Your task to perform on an android device: toggle data saver in the chrome app Image 0: 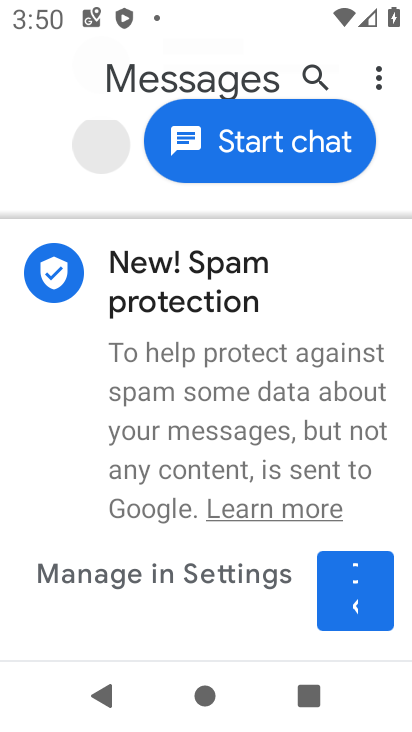
Step 0: press back button
Your task to perform on an android device: toggle data saver in the chrome app Image 1: 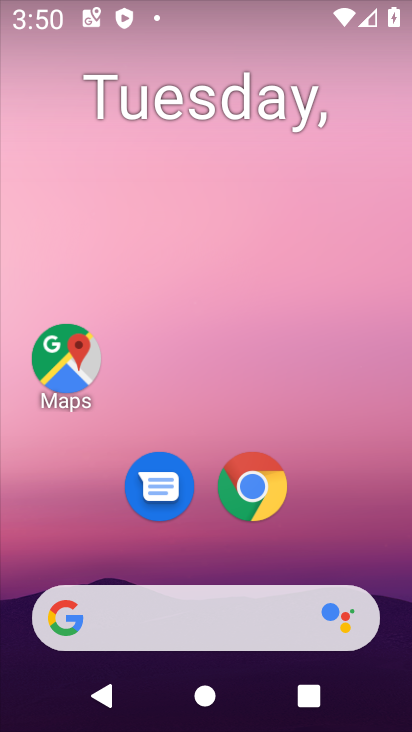
Step 1: click (263, 479)
Your task to perform on an android device: toggle data saver in the chrome app Image 2: 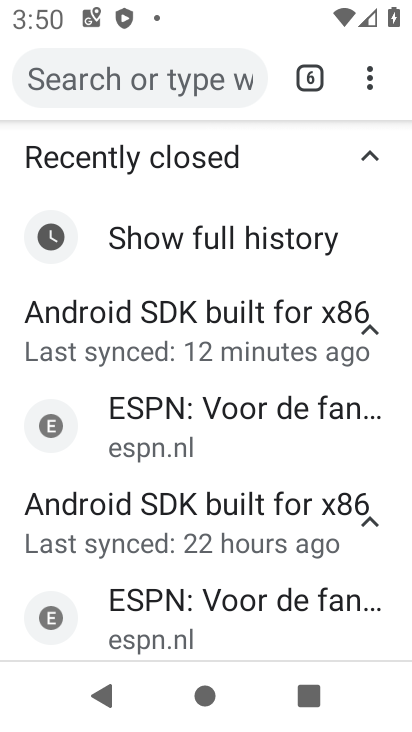
Step 2: drag from (369, 71) to (112, 550)
Your task to perform on an android device: toggle data saver in the chrome app Image 3: 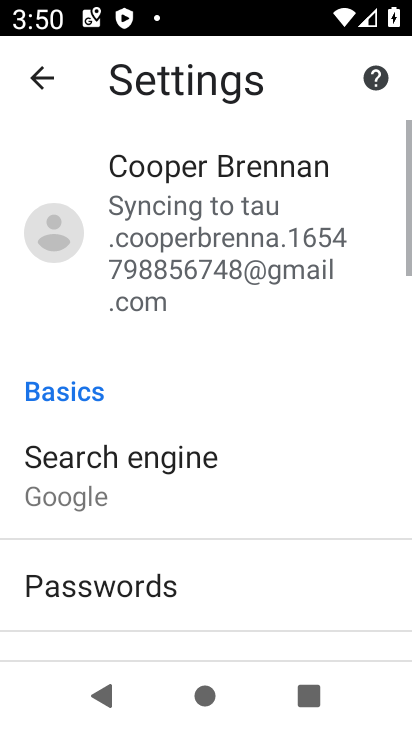
Step 3: drag from (136, 614) to (217, 123)
Your task to perform on an android device: toggle data saver in the chrome app Image 4: 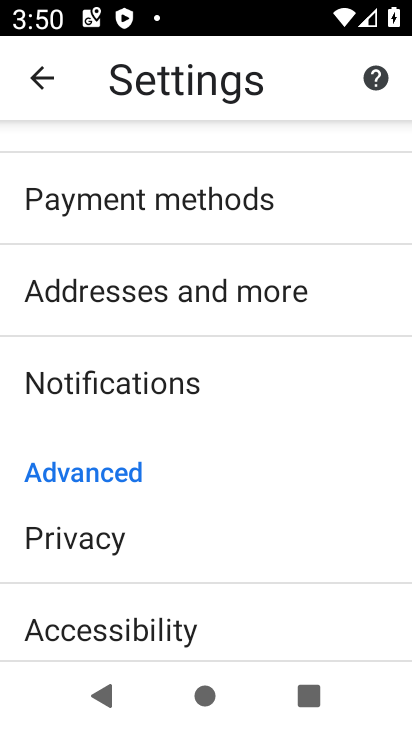
Step 4: drag from (163, 603) to (263, 246)
Your task to perform on an android device: toggle data saver in the chrome app Image 5: 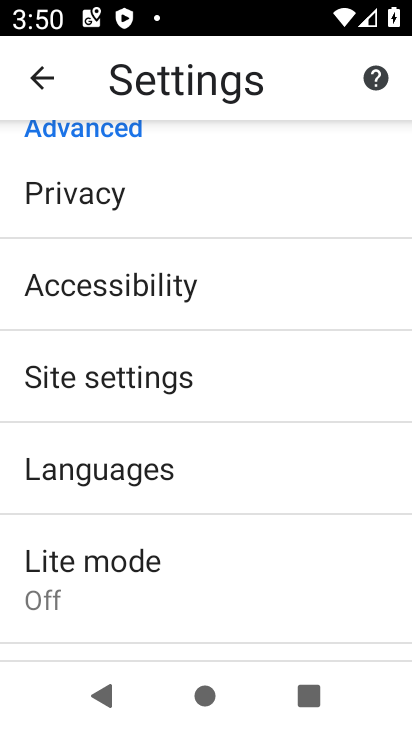
Step 5: click (95, 567)
Your task to perform on an android device: toggle data saver in the chrome app Image 6: 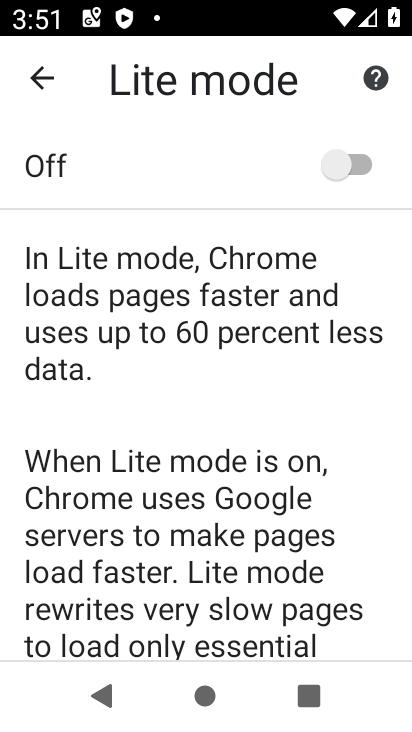
Step 6: click (344, 161)
Your task to perform on an android device: toggle data saver in the chrome app Image 7: 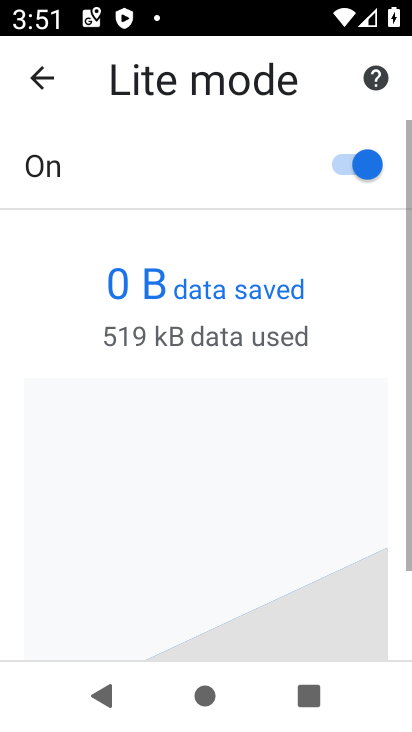
Step 7: task complete